Your task to perform on an android device: Check the news Image 0: 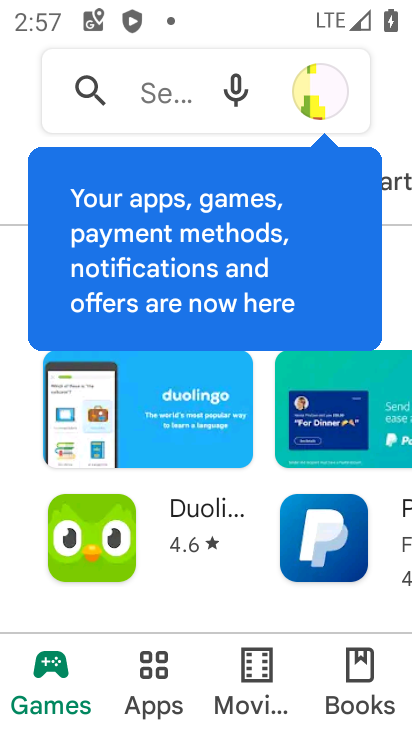
Step 0: press home button
Your task to perform on an android device: Check the news Image 1: 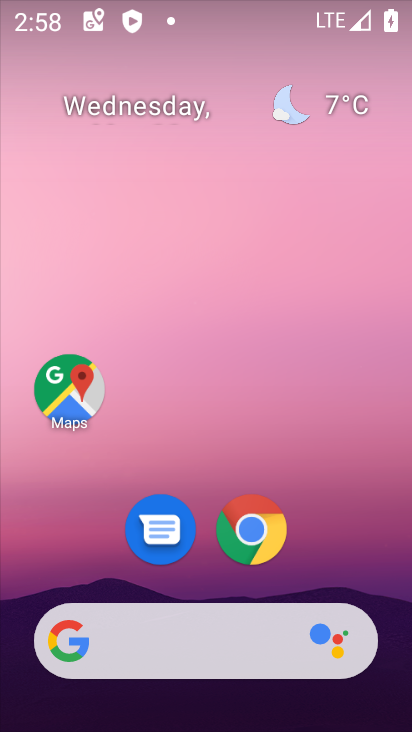
Step 1: drag from (369, 518) to (304, 206)
Your task to perform on an android device: Check the news Image 2: 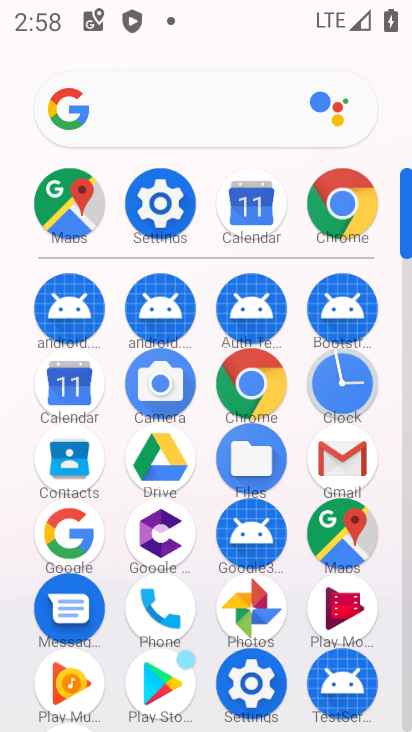
Step 2: click (350, 185)
Your task to perform on an android device: Check the news Image 3: 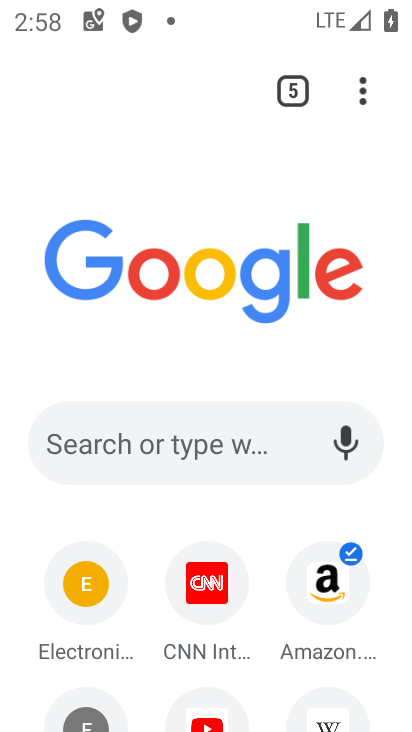
Step 3: task complete